Your task to perform on an android device: allow cookies in the chrome app Image 0: 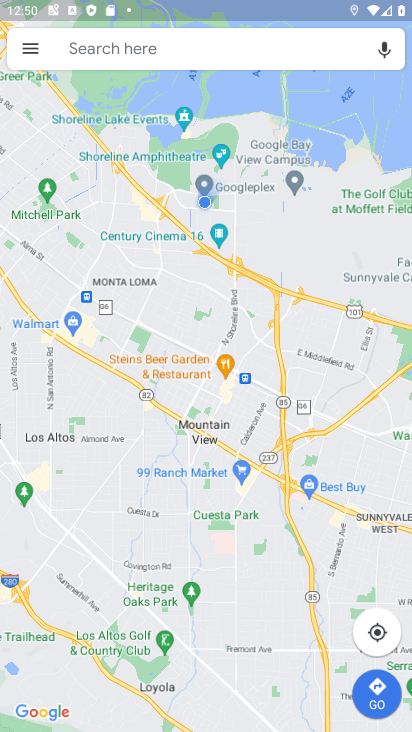
Step 0: press home button
Your task to perform on an android device: allow cookies in the chrome app Image 1: 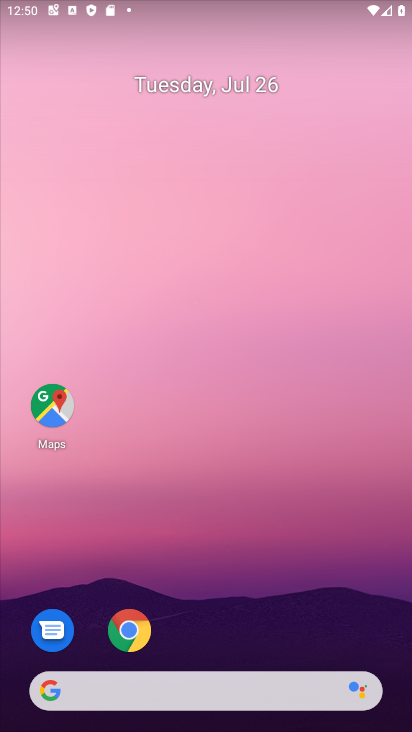
Step 1: click (129, 632)
Your task to perform on an android device: allow cookies in the chrome app Image 2: 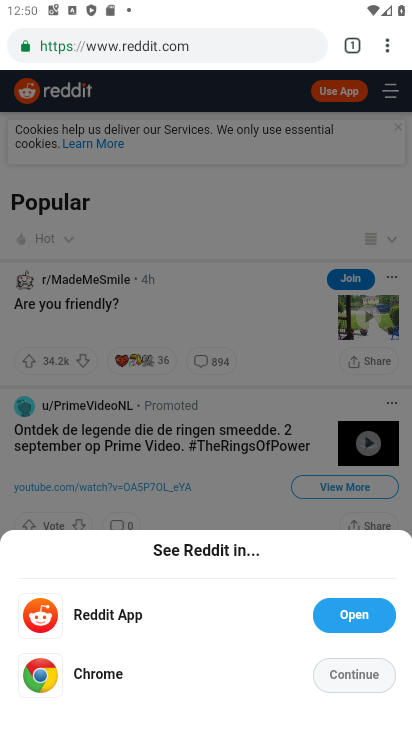
Step 2: click (387, 50)
Your task to perform on an android device: allow cookies in the chrome app Image 3: 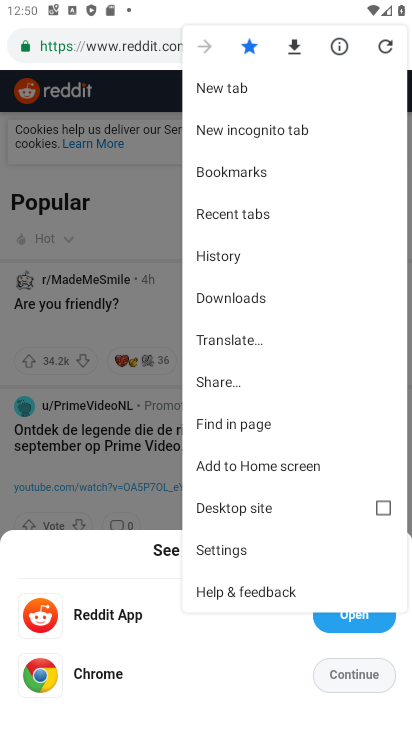
Step 3: click (236, 543)
Your task to perform on an android device: allow cookies in the chrome app Image 4: 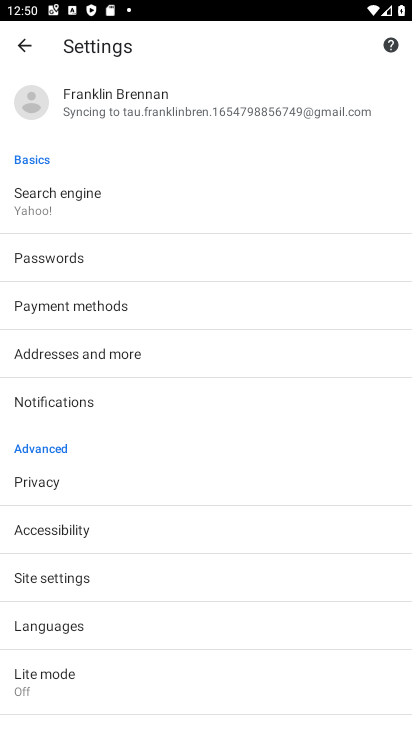
Step 4: click (46, 580)
Your task to perform on an android device: allow cookies in the chrome app Image 5: 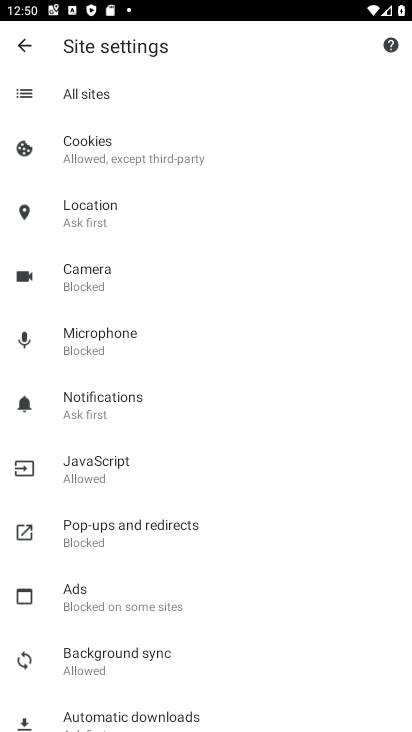
Step 5: click (117, 152)
Your task to perform on an android device: allow cookies in the chrome app Image 6: 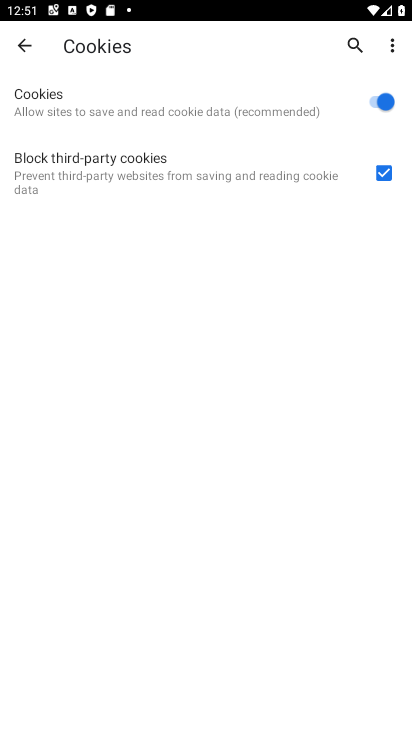
Step 6: task complete